Your task to perform on an android device: Open Wikipedia Image 0: 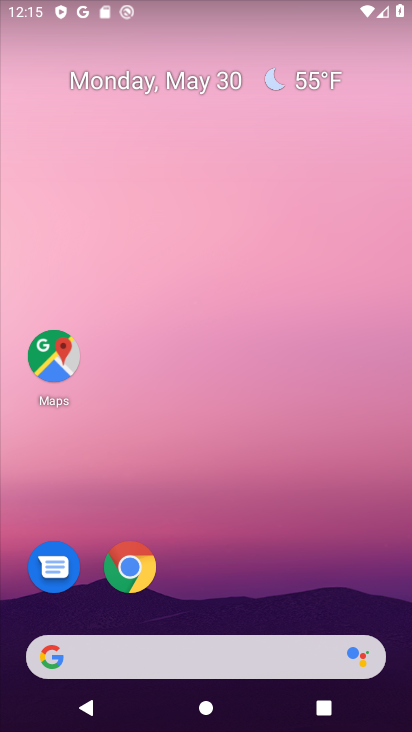
Step 0: press home button
Your task to perform on an android device: Open Wikipedia Image 1: 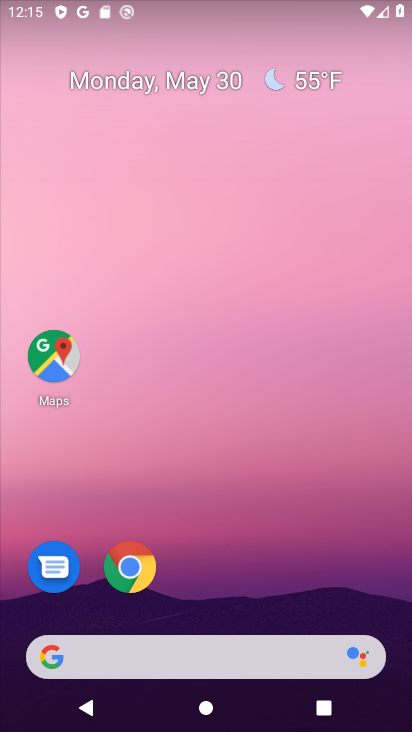
Step 1: drag from (211, 611) to (248, 42)
Your task to perform on an android device: Open Wikipedia Image 2: 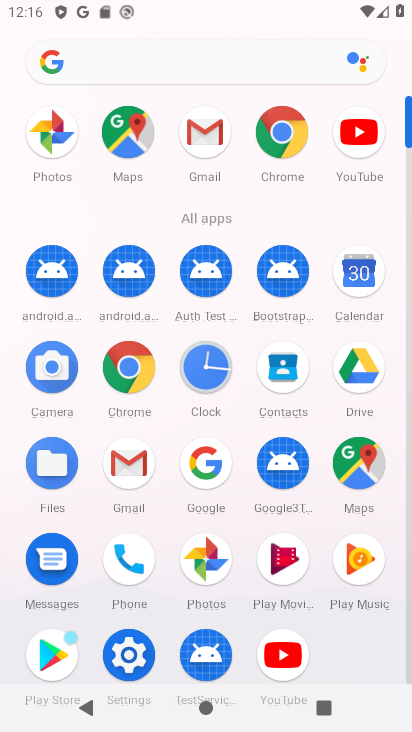
Step 2: click (274, 199)
Your task to perform on an android device: Open Wikipedia Image 3: 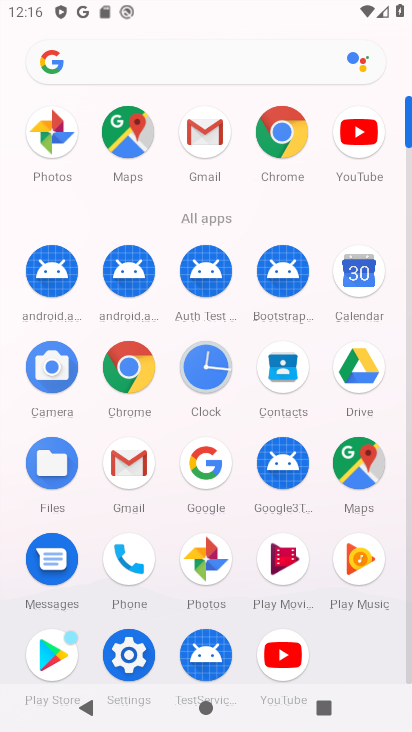
Step 3: click (293, 124)
Your task to perform on an android device: Open Wikipedia Image 4: 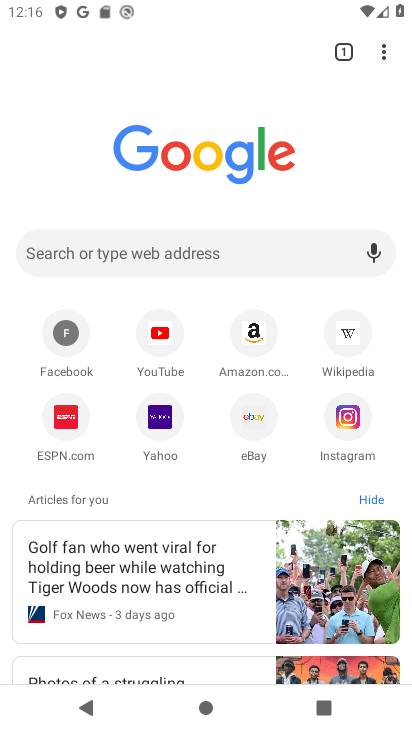
Step 4: click (345, 331)
Your task to perform on an android device: Open Wikipedia Image 5: 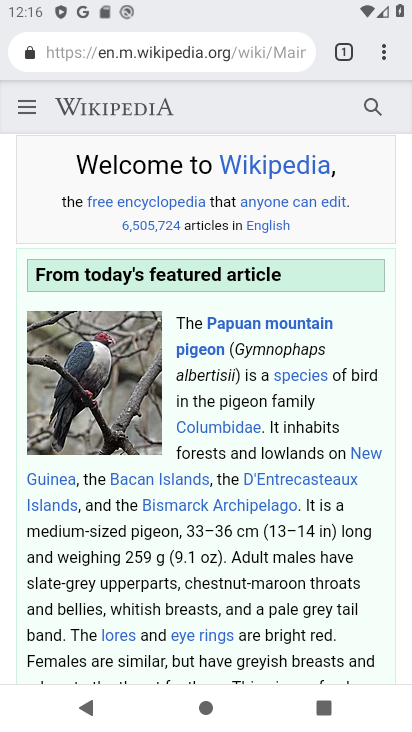
Step 5: task complete